Your task to perform on an android device: Open the web browser Image 0: 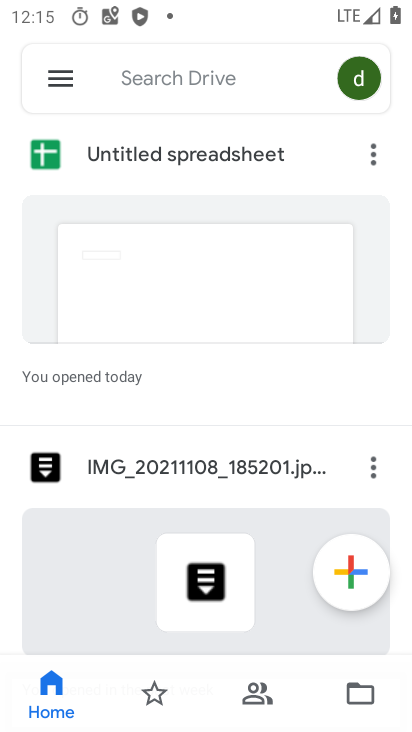
Step 0: press back button
Your task to perform on an android device: Open the web browser Image 1: 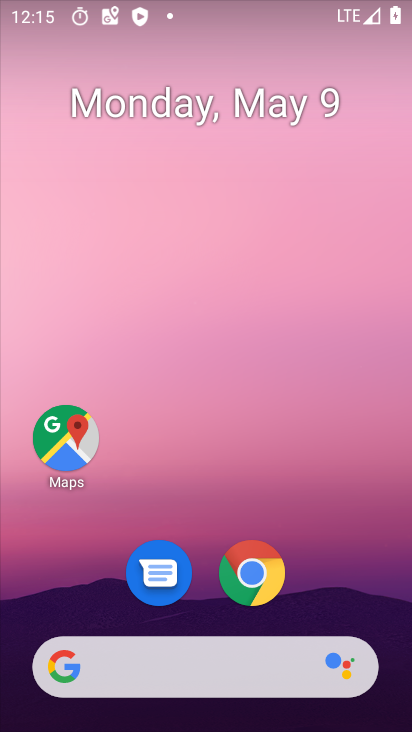
Step 1: drag from (335, 568) to (239, 5)
Your task to perform on an android device: Open the web browser Image 2: 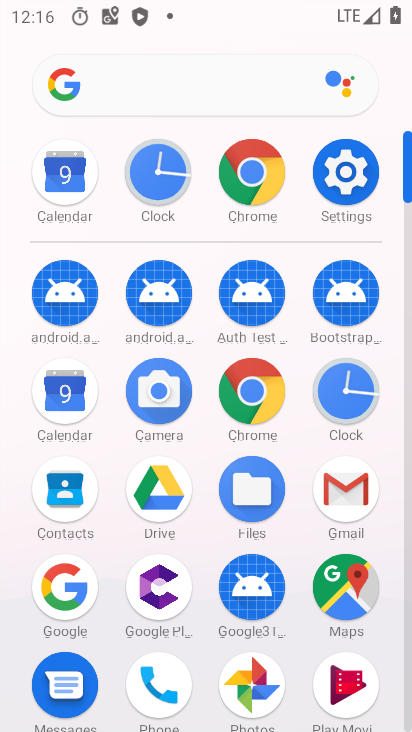
Step 2: click (250, 392)
Your task to perform on an android device: Open the web browser Image 3: 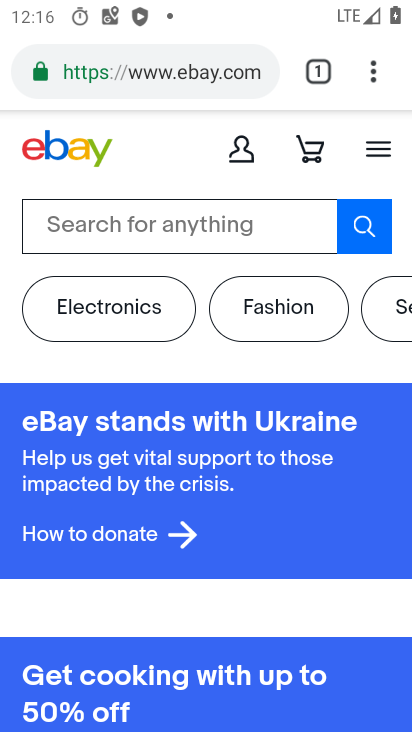
Step 3: task complete